Your task to perform on an android device: open app "Grab" Image 0: 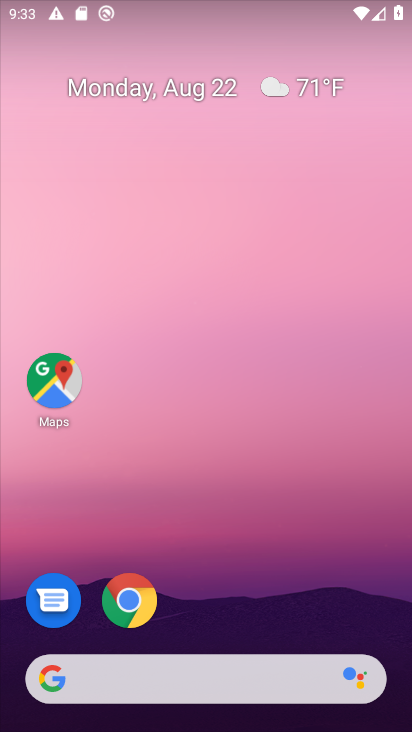
Step 0: drag from (232, 597) to (238, 211)
Your task to perform on an android device: open app "Grab" Image 1: 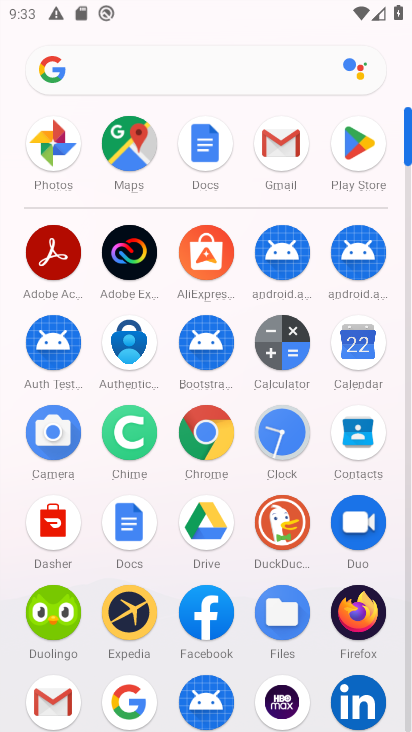
Step 1: click (337, 156)
Your task to perform on an android device: open app "Grab" Image 2: 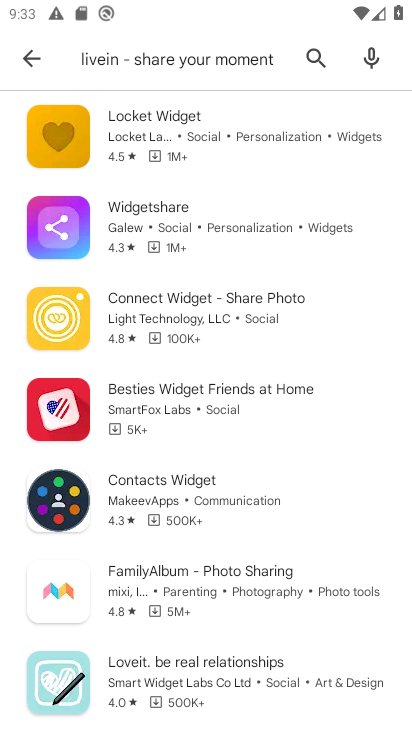
Step 2: click (318, 59)
Your task to perform on an android device: open app "Grab" Image 3: 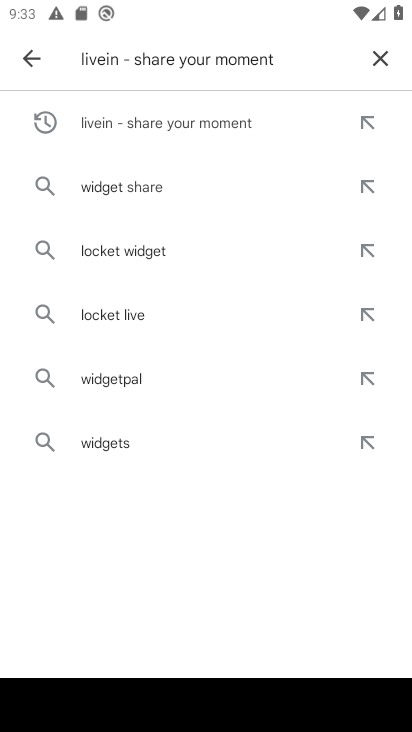
Step 3: click (380, 52)
Your task to perform on an android device: open app "Grab" Image 4: 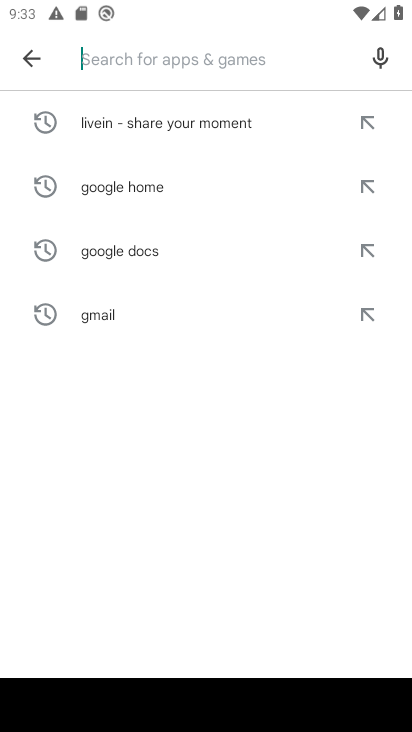
Step 4: type "Grab"
Your task to perform on an android device: open app "Grab" Image 5: 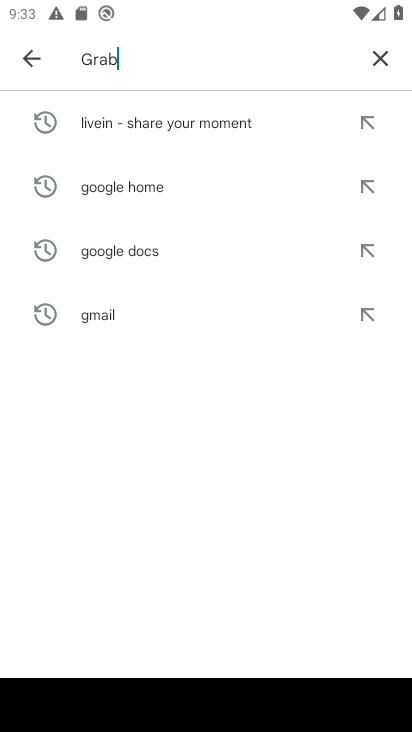
Step 5: type ""
Your task to perform on an android device: open app "Grab" Image 6: 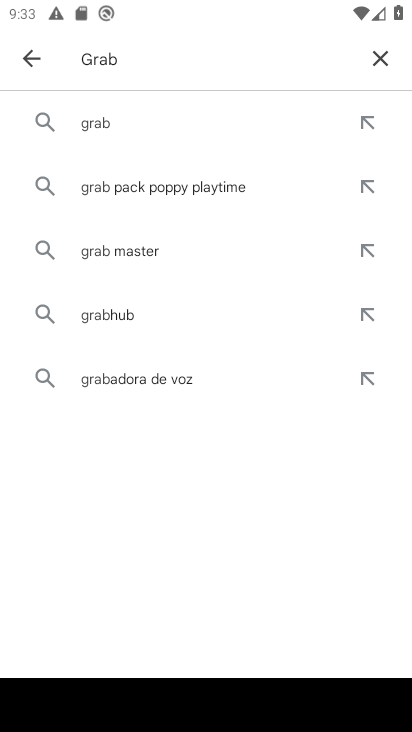
Step 6: click (102, 122)
Your task to perform on an android device: open app "Grab" Image 7: 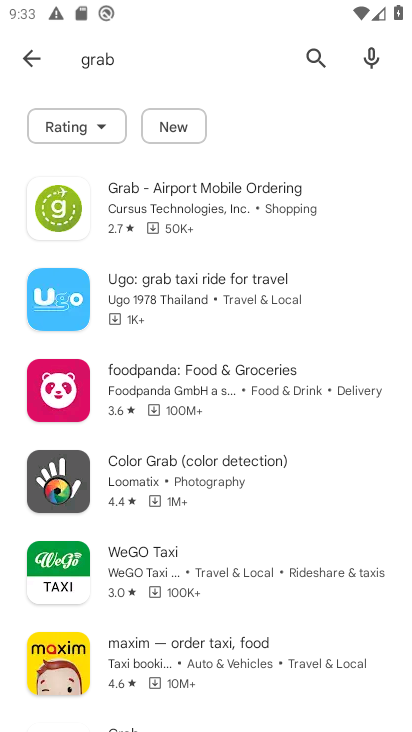
Step 7: click (159, 218)
Your task to perform on an android device: open app "Grab" Image 8: 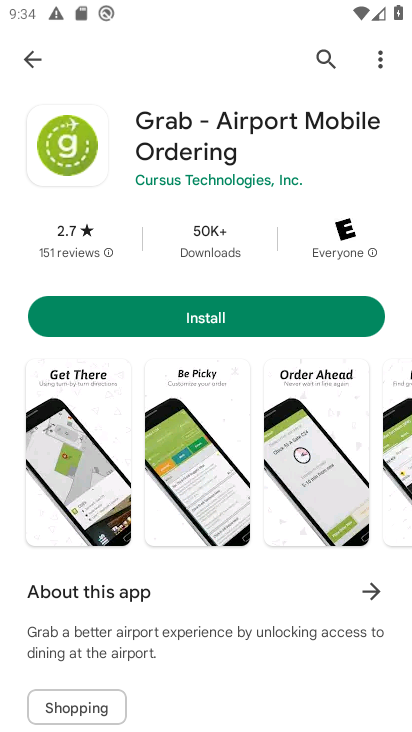
Step 8: task complete